Your task to perform on an android device: Open the map Image 0: 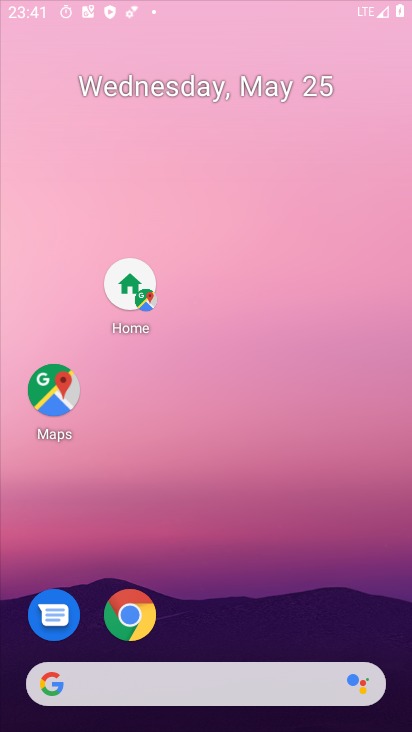
Step 0: press home button
Your task to perform on an android device: Open the map Image 1: 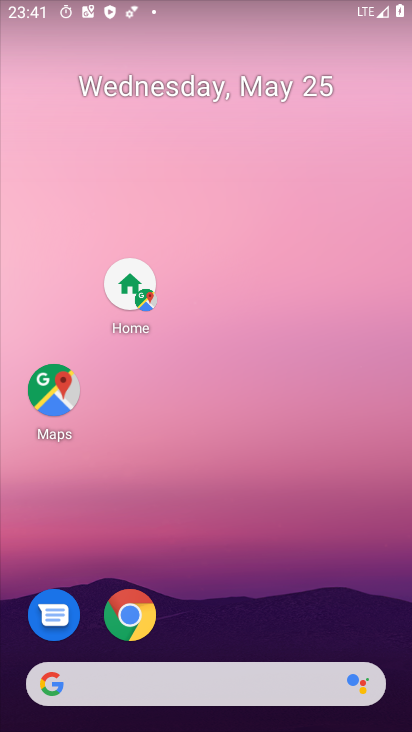
Step 1: click (56, 408)
Your task to perform on an android device: Open the map Image 2: 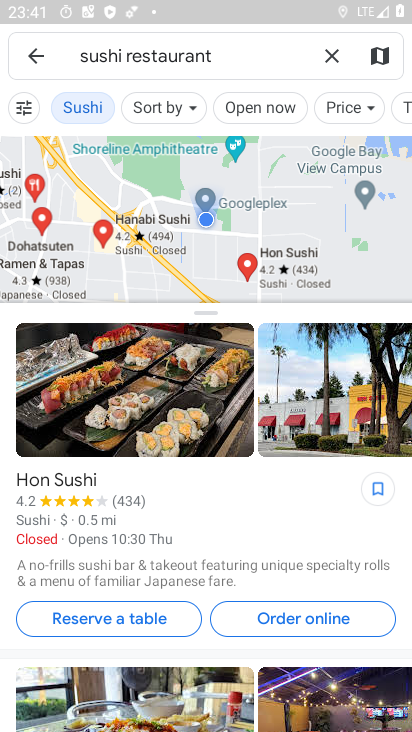
Step 2: click (336, 55)
Your task to perform on an android device: Open the map Image 3: 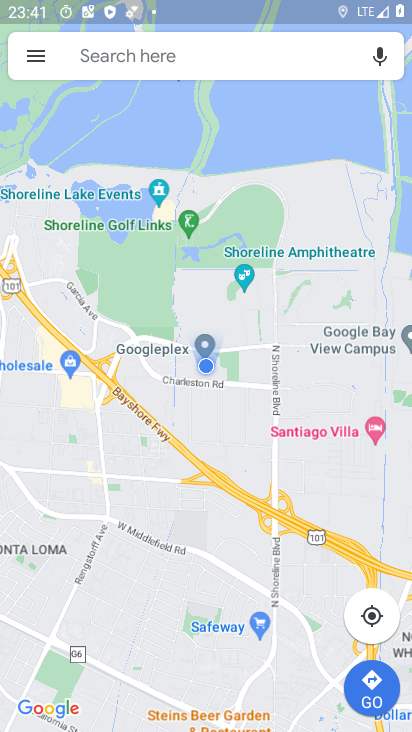
Step 3: task complete